Your task to perform on an android device: Open Google Maps Image 0: 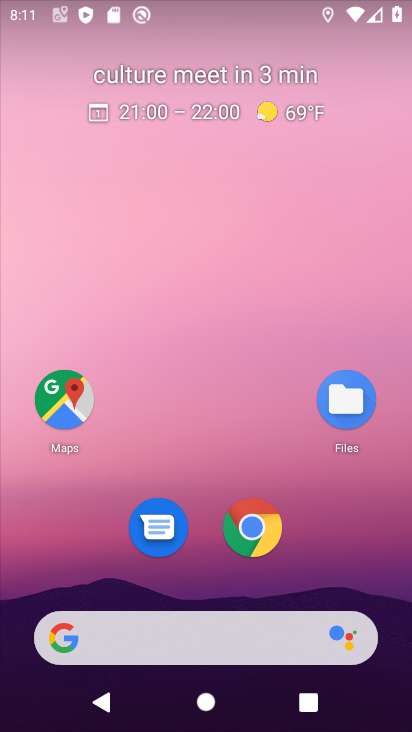
Step 0: click (65, 407)
Your task to perform on an android device: Open Google Maps Image 1: 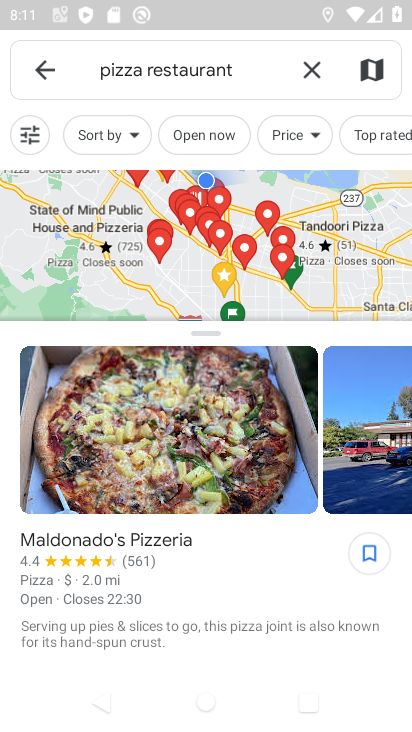
Step 1: task complete